Your task to perform on an android device: find which apps use the phone's location Image 0: 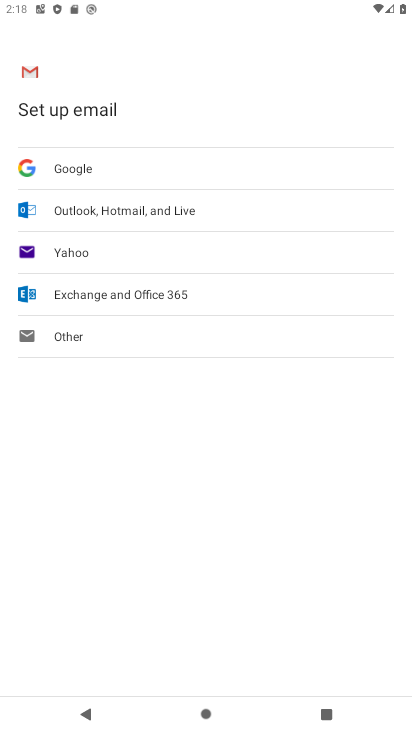
Step 0: press home button
Your task to perform on an android device: find which apps use the phone's location Image 1: 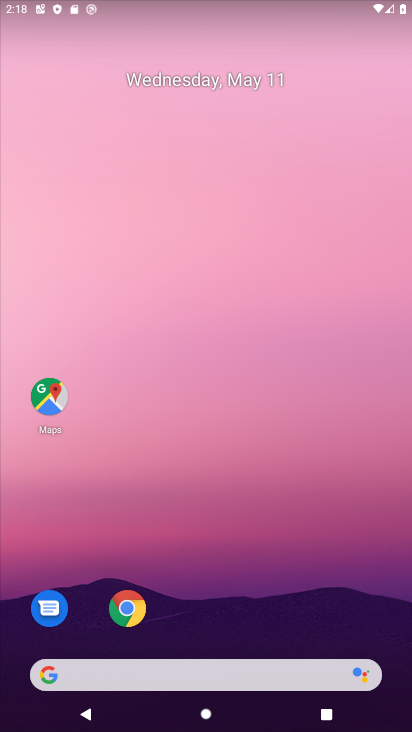
Step 1: drag from (215, 640) to (254, 359)
Your task to perform on an android device: find which apps use the phone's location Image 2: 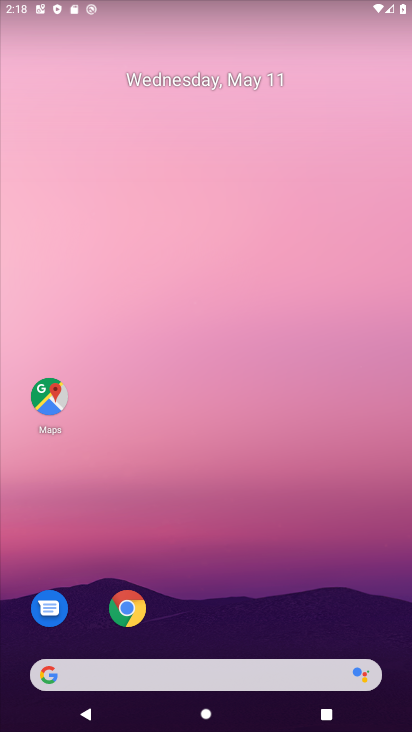
Step 2: drag from (271, 632) to (268, 254)
Your task to perform on an android device: find which apps use the phone's location Image 3: 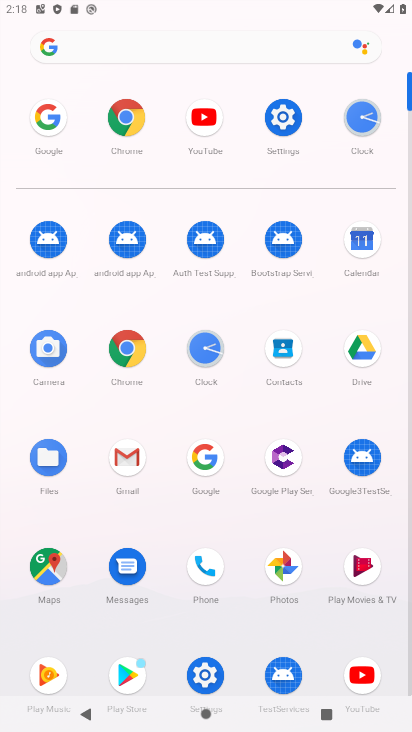
Step 3: click (291, 120)
Your task to perform on an android device: find which apps use the phone's location Image 4: 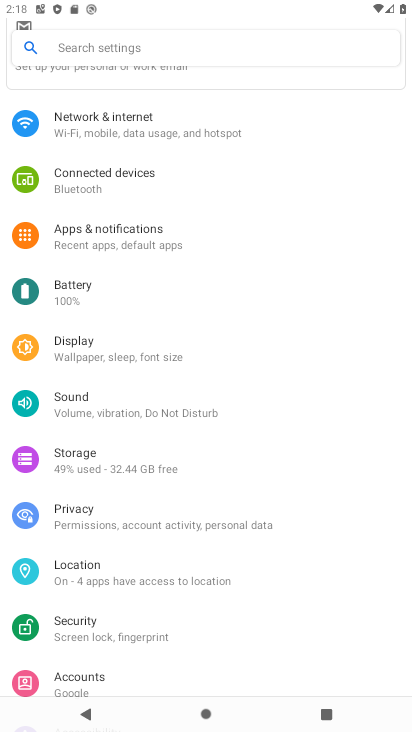
Step 4: click (91, 574)
Your task to perform on an android device: find which apps use the phone's location Image 5: 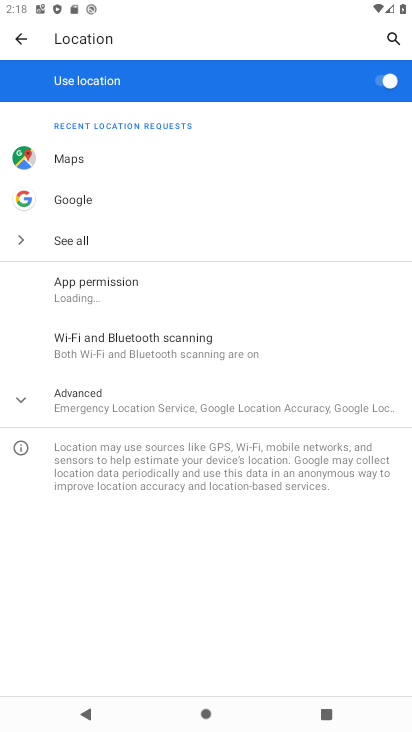
Step 5: click (149, 278)
Your task to perform on an android device: find which apps use the phone's location Image 6: 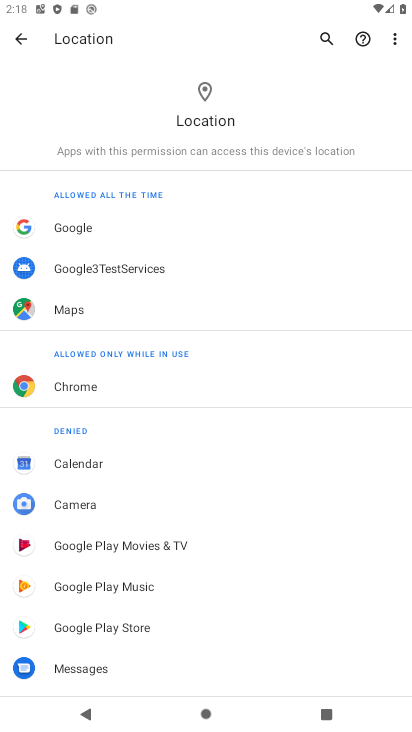
Step 6: task complete